Your task to perform on an android device: toggle priority inbox in the gmail app Image 0: 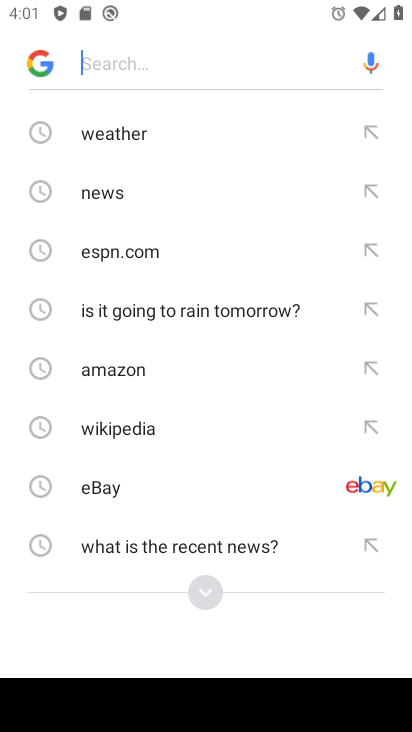
Step 0: press home button
Your task to perform on an android device: toggle priority inbox in the gmail app Image 1: 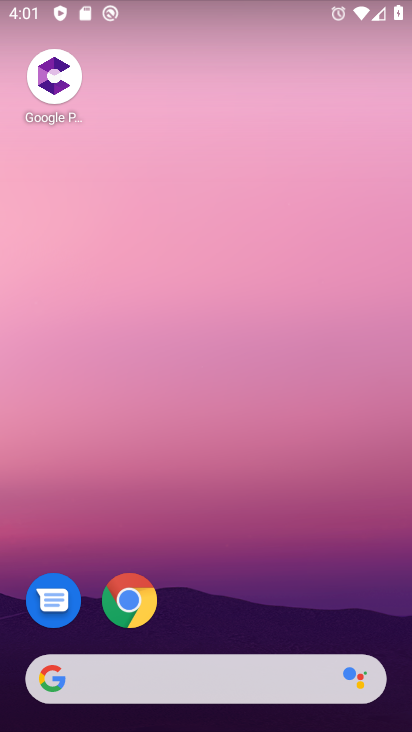
Step 1: drag from (244, 624) to (190, 3)
Your task to perform on an android device: toggle priority inbox in the gmail app Image 2: 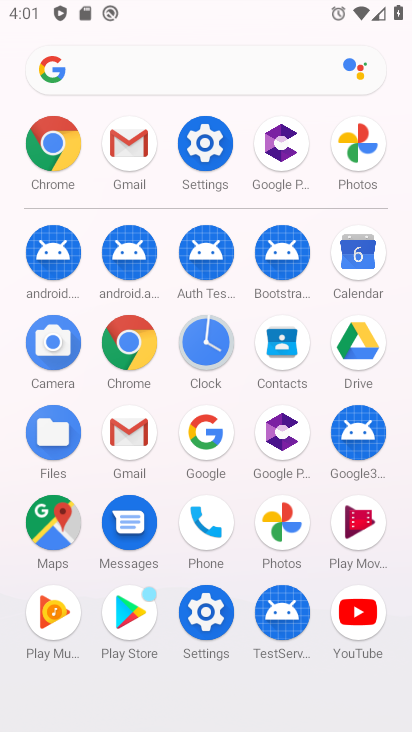
Step 2: click (128, 439)
Your task to perform on an android device: toggle priority inbox in the gmail app Image 3: 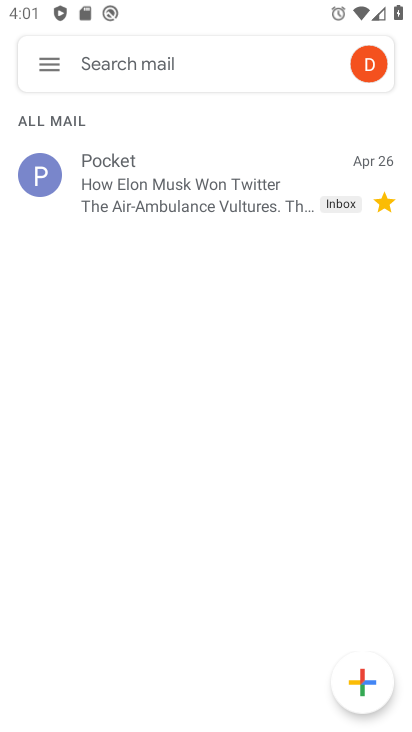
Step 3: click (59, 76)
Your task to perform on an android device: toggle priority inbox in the gmail app Image 4: 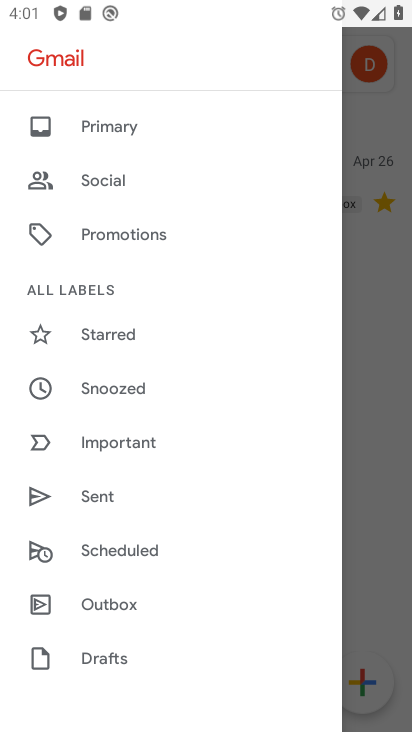
Step 4: drag from (139, 565) to (177, 210)
Your task to perform on an android device: toggle priority inbox in the gmail app Image 5: 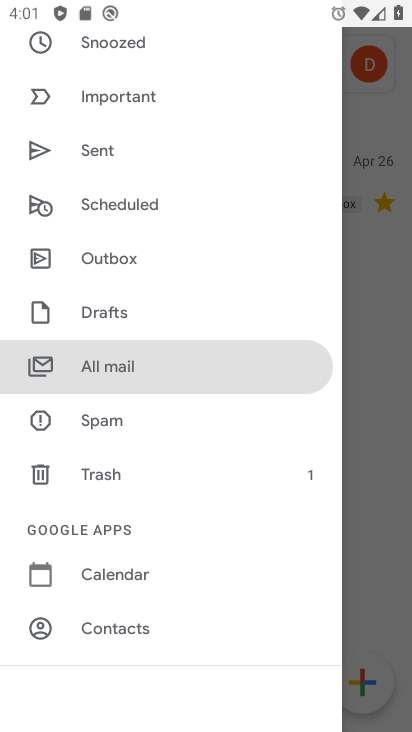
Step 5: drag from (120, 603) to (201, 173)
Your task to perform on an android device: toggle priority inbox in the gmail app Image 6: 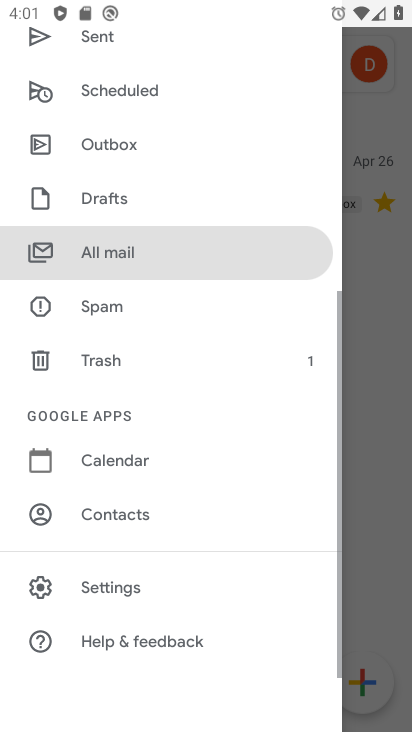
Step 6: click (123, 589)
Your task to perform on an android device: toggle priority inbox in the gmail app Image 7: 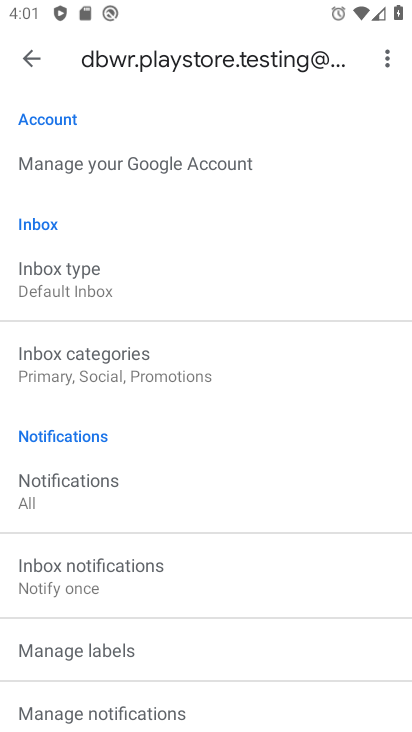
Step 7: click (46, 284)
Your task to perform on an android device: toggle priority inbox in the gmail app Image 8: 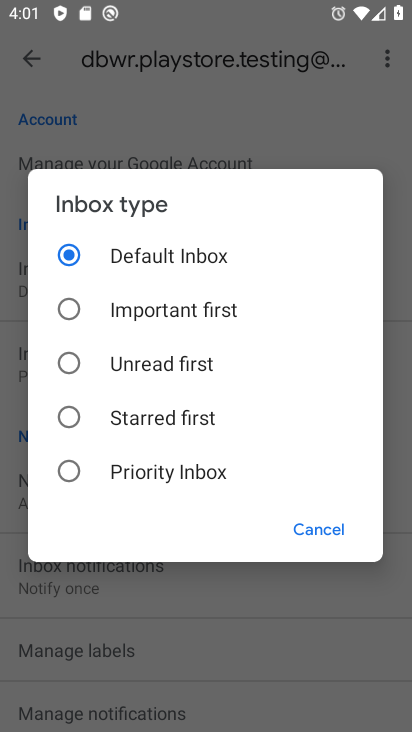
Step 8: click (71, 466)
Your task to perform on an android device: toggle priority inbox in the gmail app Image 9: 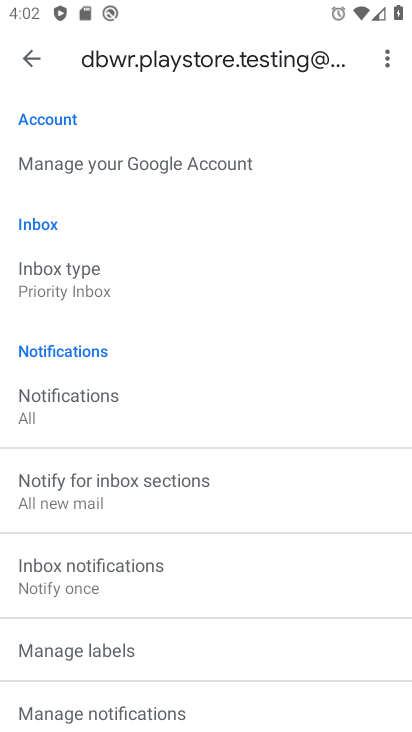
Step 9: task complete